Your task to perform on an android device: open chrome and create a bookmark for the current page Image 0: 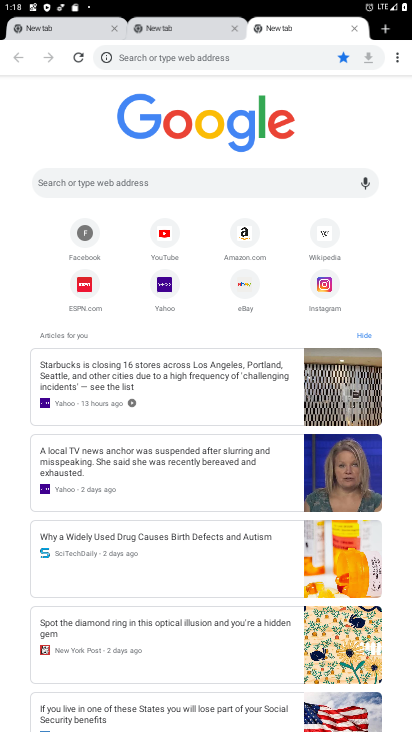
Step 0: press home button
Your task to perform on an android device: open chrome and create a bookmark for the current page Image 1: 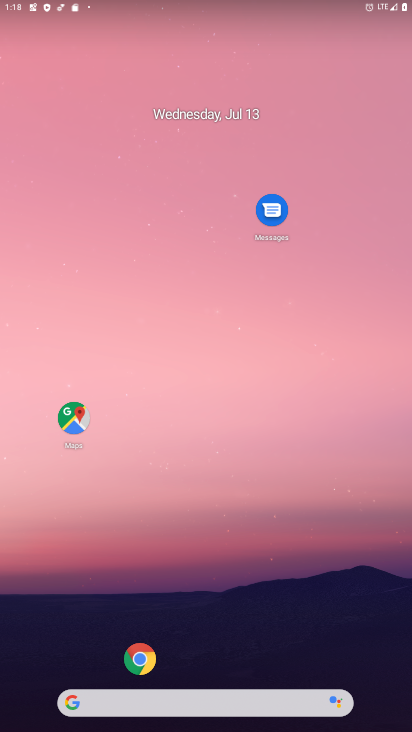
Step 1: click (149, 650)
Your task to perform on an android device: open chrome and create a bookmark for the current page Image 2: 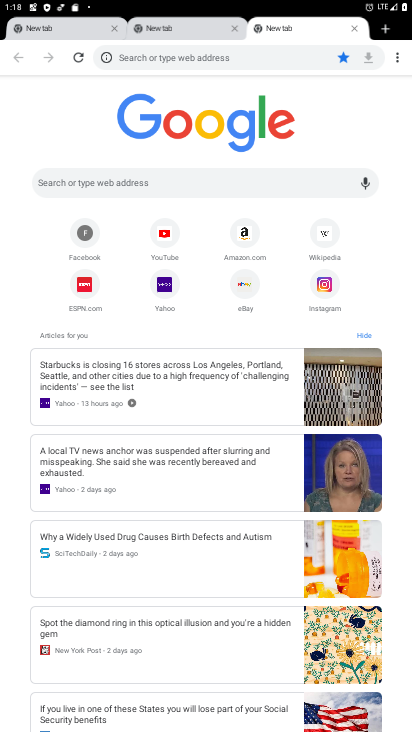
Step 2: click (344, 55)
Your task to perform on an android device: open chrome and create a bookmark for the current page Image 3: 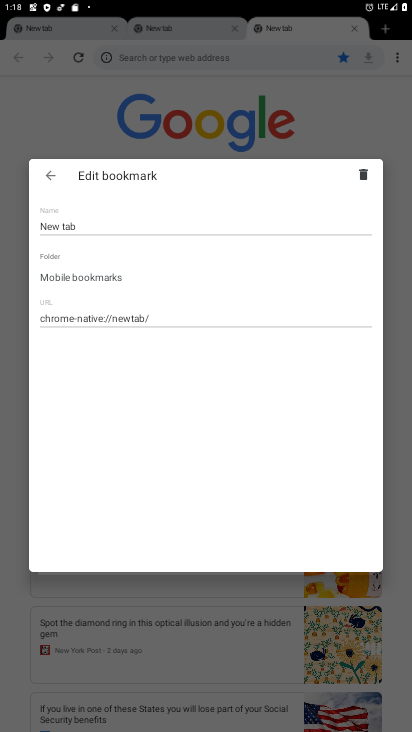
Step 3: click (40, 168)
Your task to perform on an android device: open chrome and create a bookmark for the current page Image 4: 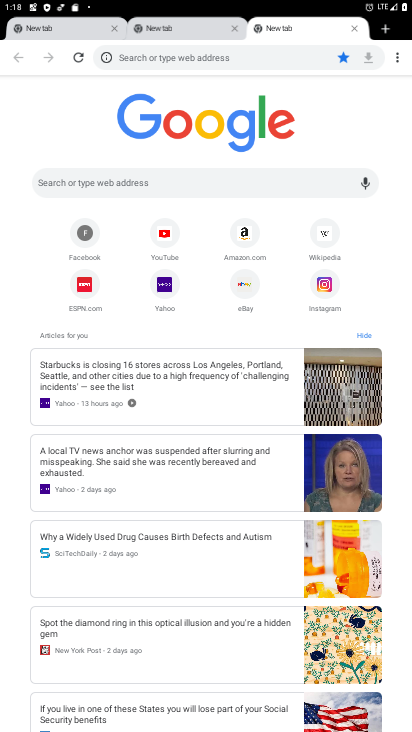
Step 4: task complete